Your task to perform on an android device: Go to CNN.com Image 0: 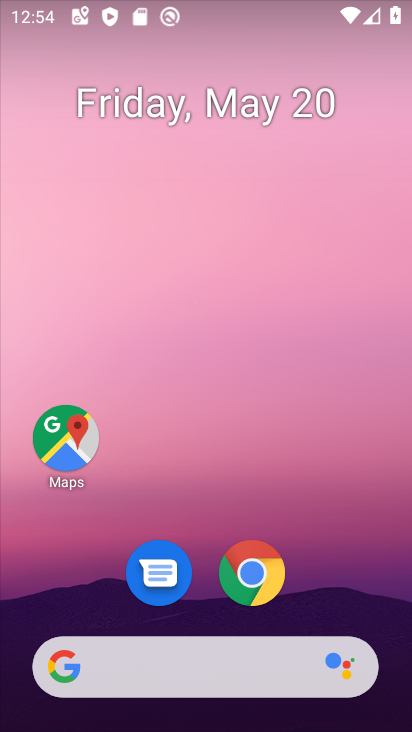
Step 0: click (250, 566)
Your task to perform on an android device: Go to CNN.com Image 1: 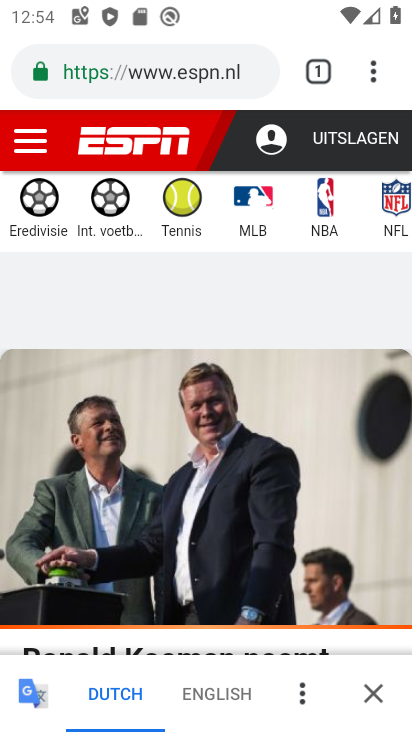
Step 1: click (373, 81)
Your task to perform on an android device: Go to CNN.com Image 2: 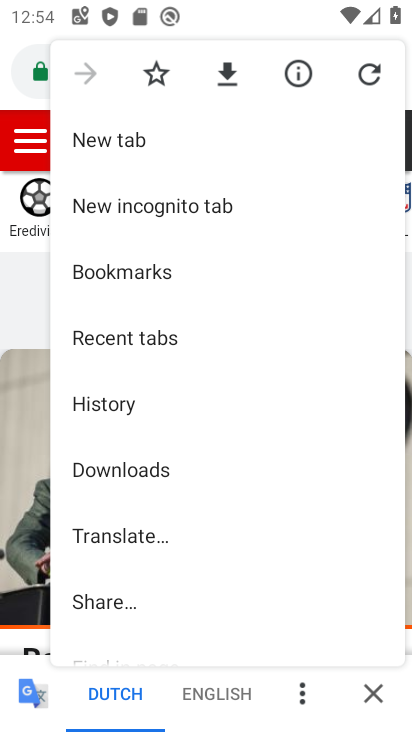
Step 2: click (124, 137)
Your task to perform on an android device: Go to CNN.com Image 3: 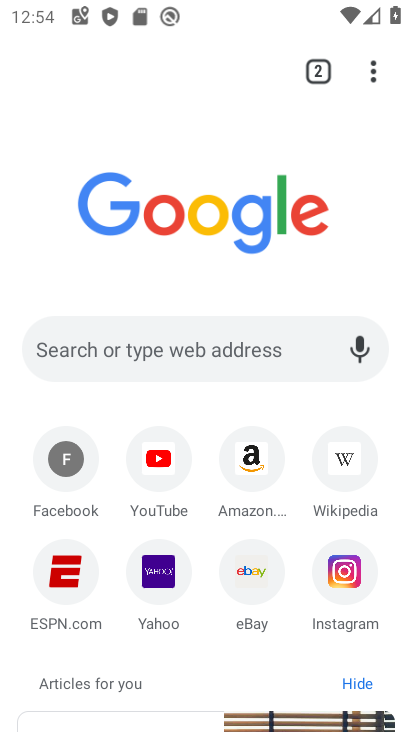
Step 3: click (224, 349)
Your task to perform on an android device: Go to CNN.com Image 4: 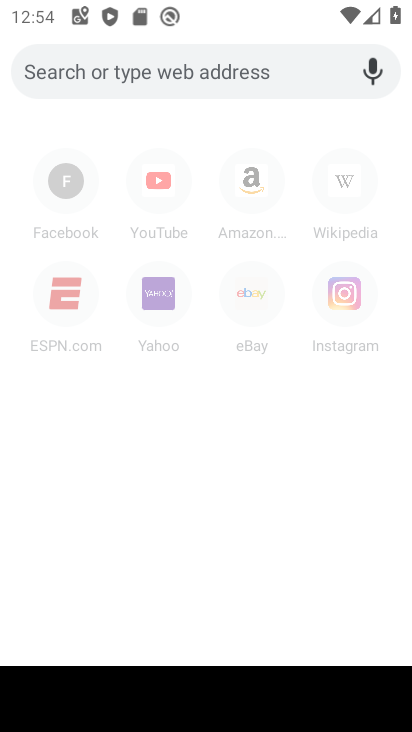
Step 4: type "CNN.com"
Your task to perform on an android device: Go to CNN.com Image 5: 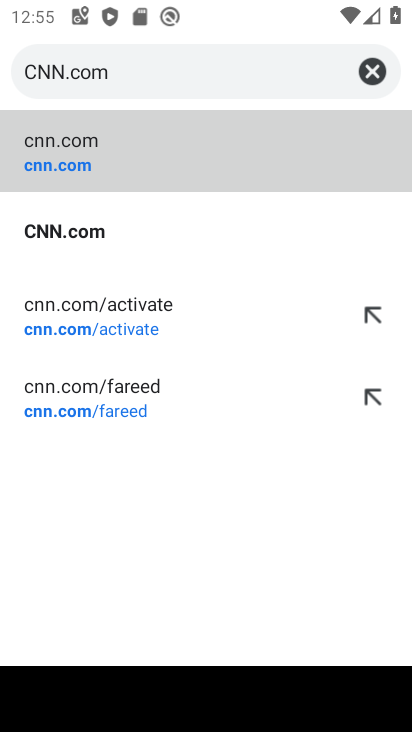
Step 5: click (83, 155)
Your task to perform on an android device: Go to CNN.com Image 6: 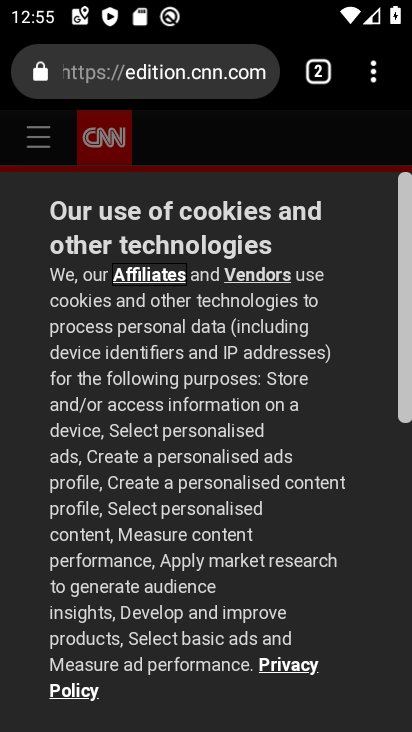
Step 6: task complete